Your task to perform on an android device: turn on wifi Image 0: 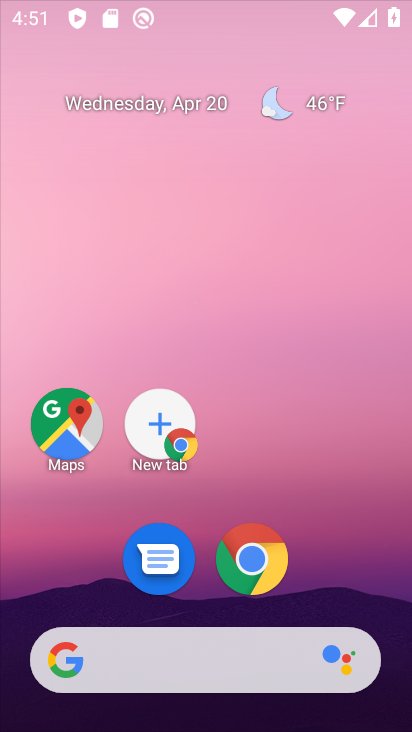
Step 0: drag from (326, 561) to (322, 115)
Your task to perform on an android device: turn on wifi Image 1: 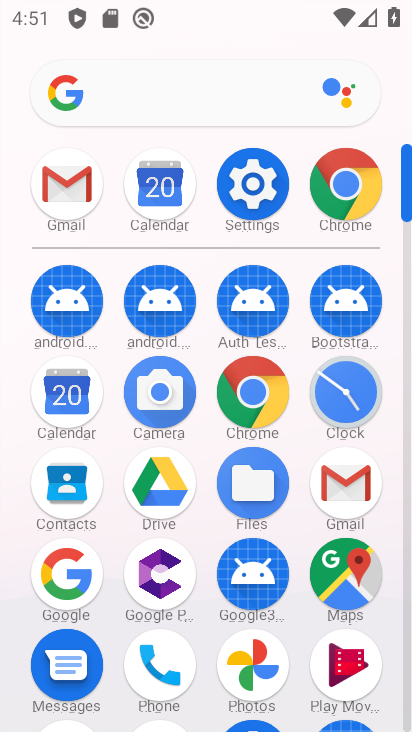
Step 1: click (259, 207)
Your task to perform on an android device: turn on wifi Image 2: 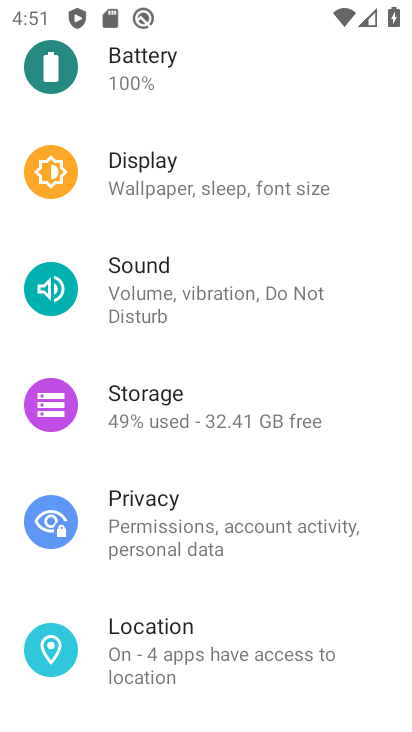
Step 2: drag from (209, 186) to (208, 508)
Your task to perform on an android device: turn on wifi Image 3: 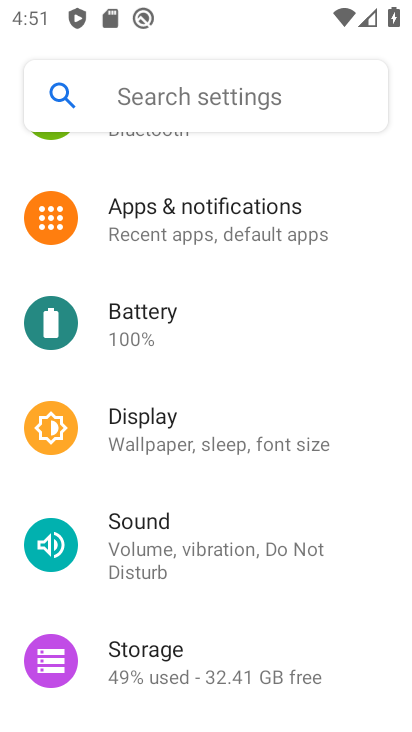
Step 3: drag from (247, 211) to (253, 660)
Your task to perform on an android device: turn on wifi Image 4: 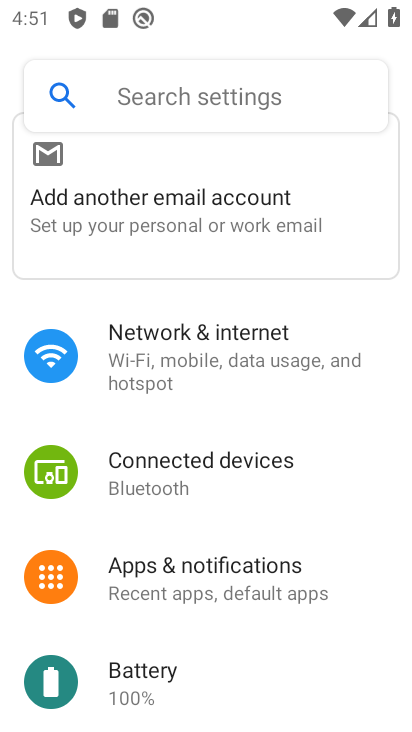
Step 4: click (206, 383)
Your task to perform on an android device: turn on wifi Image 5: 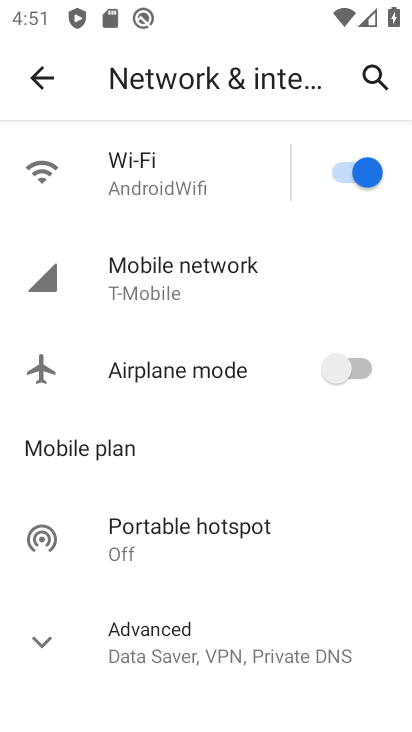
Step 5: task complete